Your task to perform on an android device: Open Google Chrome Image 0: 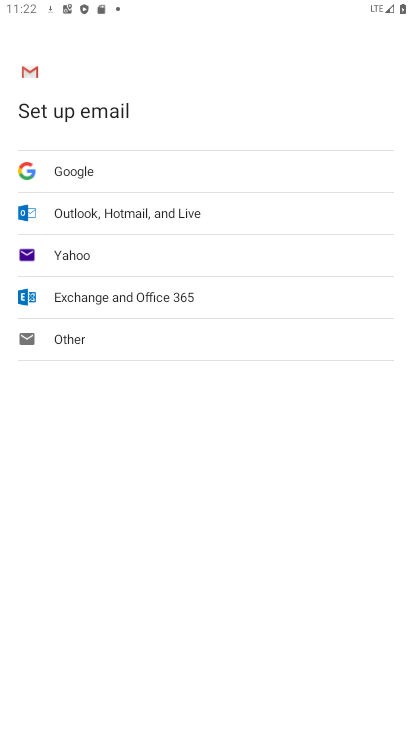
Step 0: press home button
Your task to perform on an android device: Open Google Chrome Image 1: 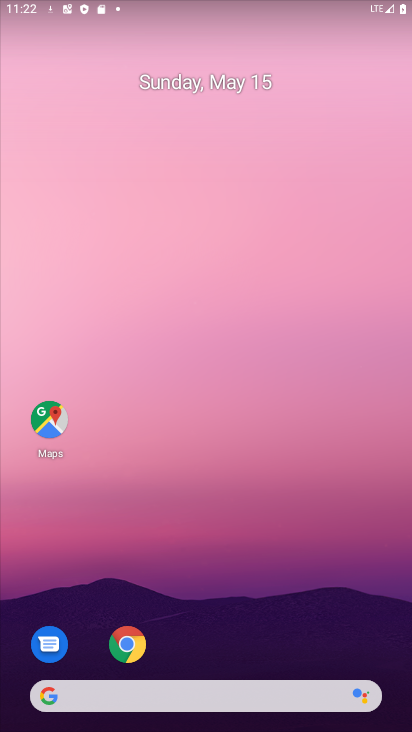
Step 1: drag from (186, 724) to (231, 221)
Your task to perform on an android device: Open Google Chrome Image 2: 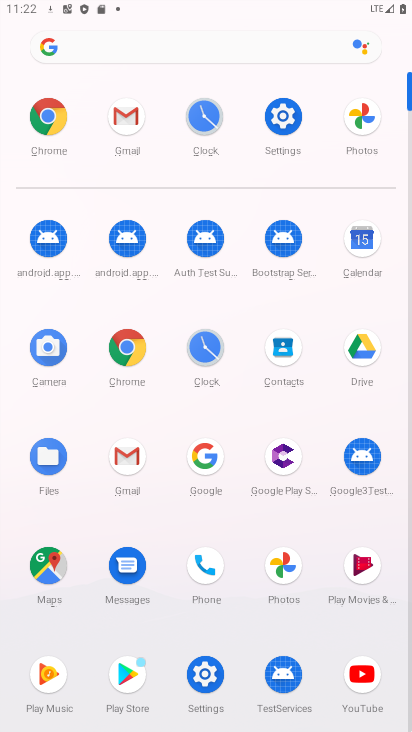
Step 2: click (130, 345)
Your task to perform on an android device: Open Google Chrome Image 3: 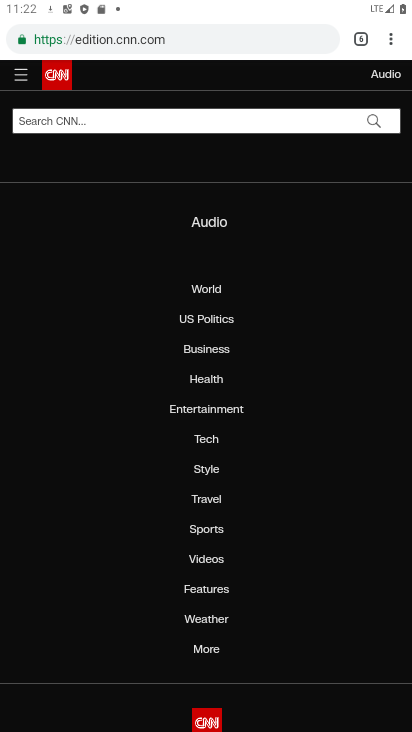
Step 3: click (361, 37)
Your task to perform on an android device: Open Google Chrome Image 4: 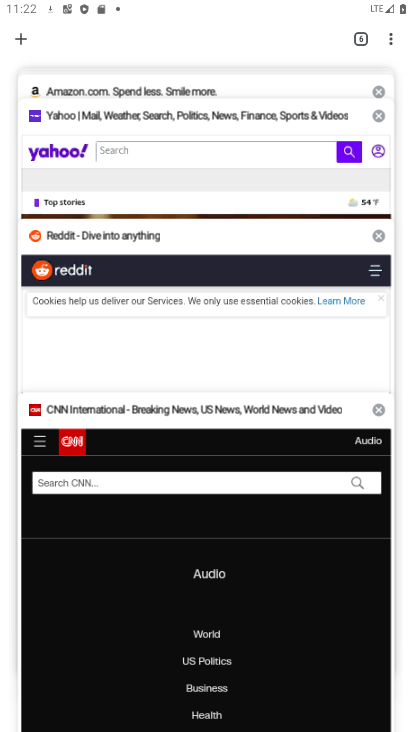
Step 4: click (26, 39)
Your task to perform on an android device: Open Google Chrome Image 5: 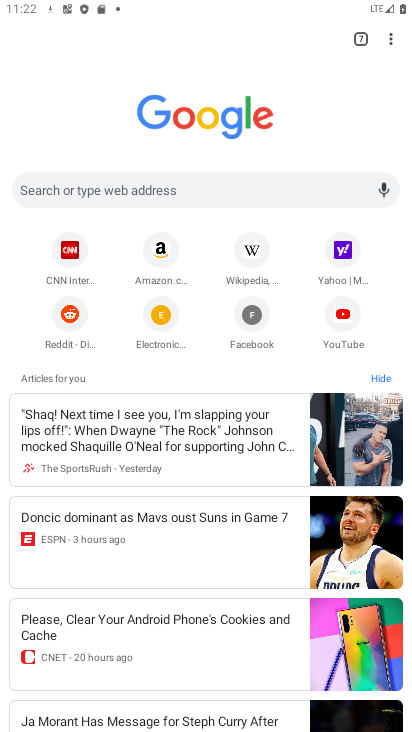
Step 5: task complete